Your task to perform on an android device: Open settings Image 0: 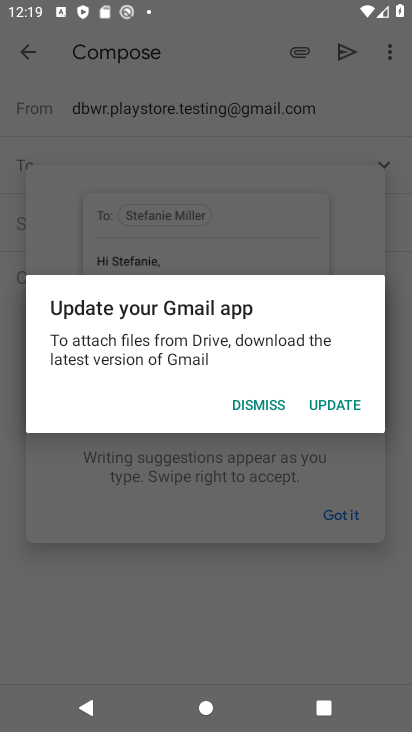
Step 0: press home button
Your task to perform on an android device: Open settings Image 1: 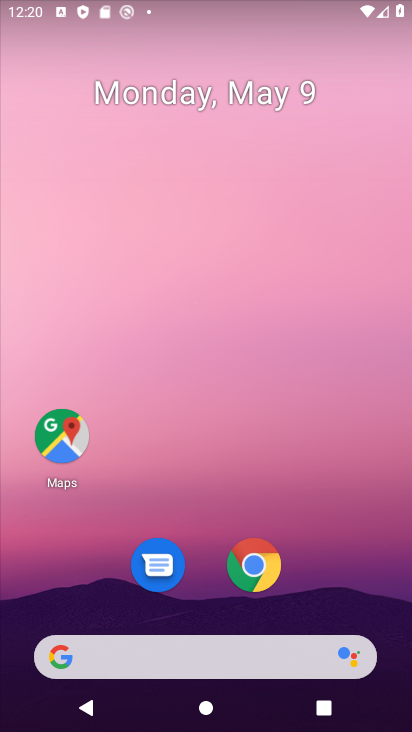
Step 1: drag from (240, 661) to (237, 28)
Your task to perform on an android device: Open settings Image 2: 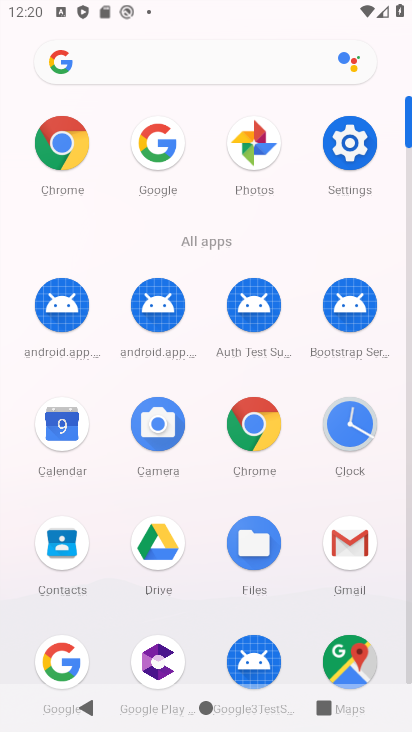
Step 2: click (367, 158)
Your task to perform on an android device: Open settings Image 3: 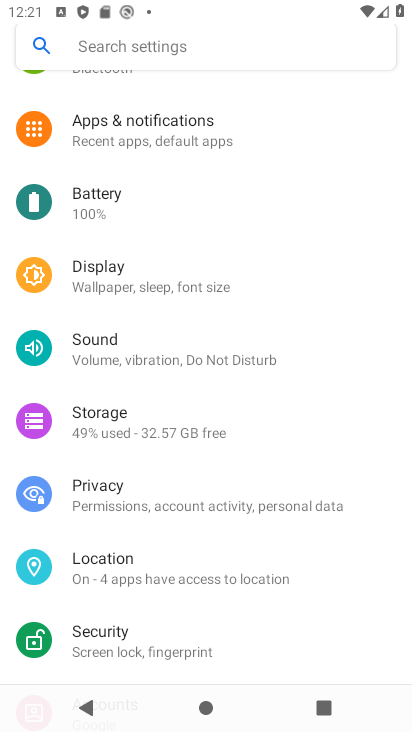
Step 3: task complete